Your task to perform on an android device: Go to ESPN.com Image 0: 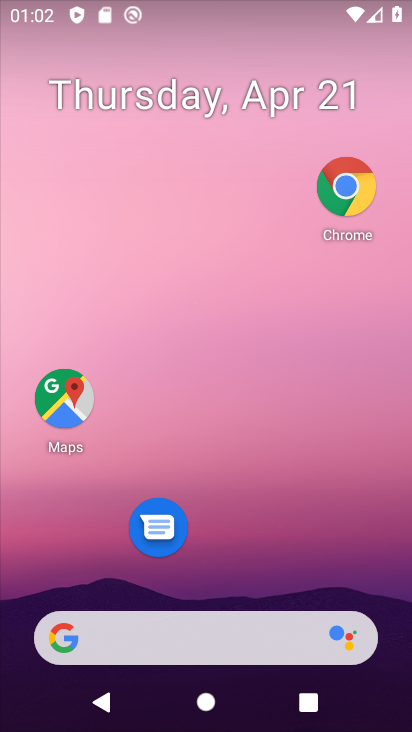
Step 0: drag from (239, 575) to (277, 117)
Your task to perform on an android device: Go to ESPN.com Image 1: 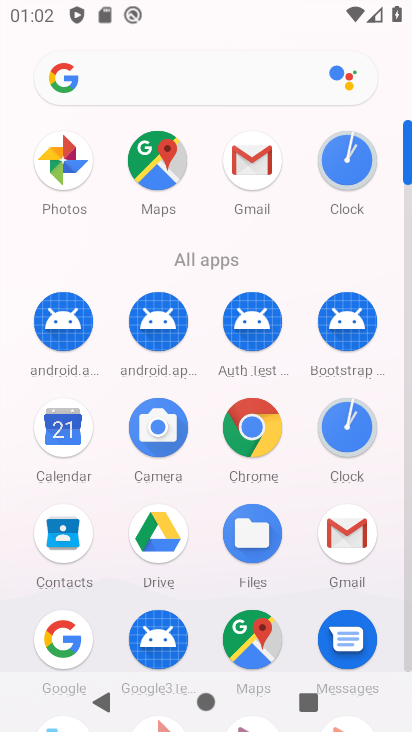
Step 1: click (239, 428)
Your task to perform on an android device: Go to ESPN.com Image 2: 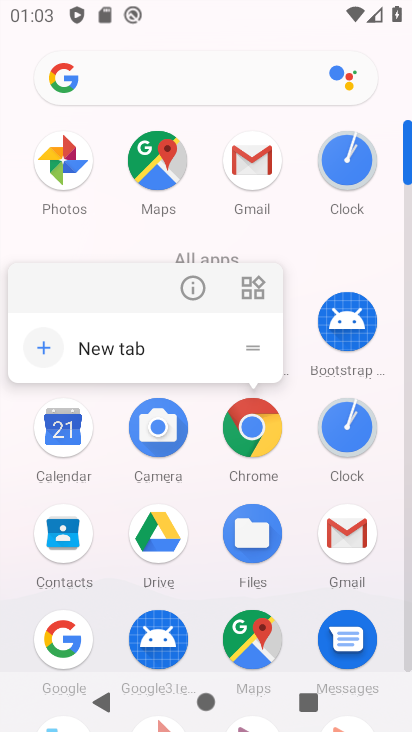
Step 2: click (183, 290)
Your task to perform on an android device: Go to ESPN.com Image 3: 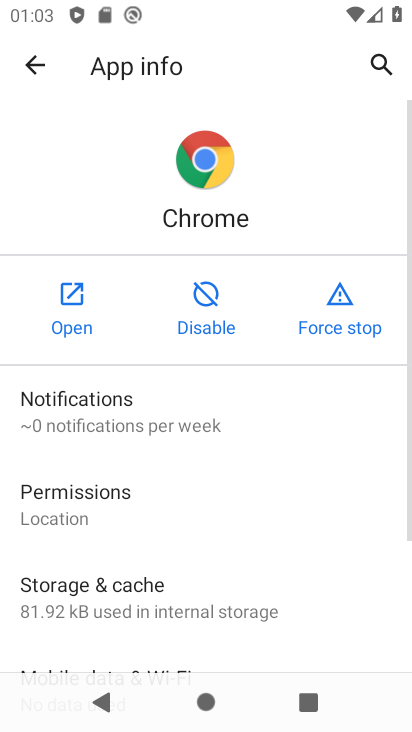
Step 3: click (65, 297)
Your task to perform on an android device: Go to ESPN.com Image 4: 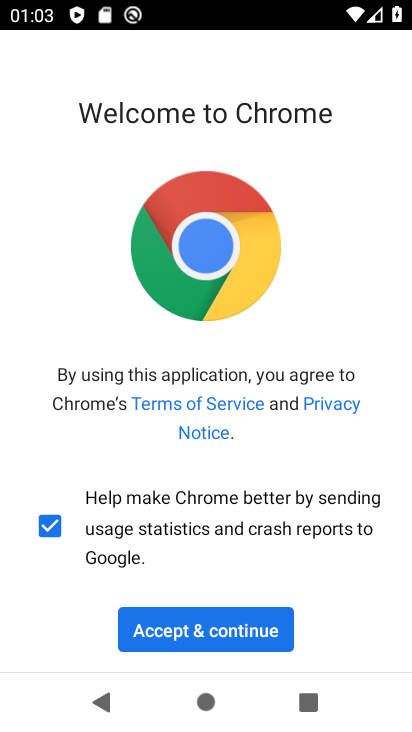
Step 4: click (184, 629)
Your task to perform on an android device: Go to ESPN.com Image 5: 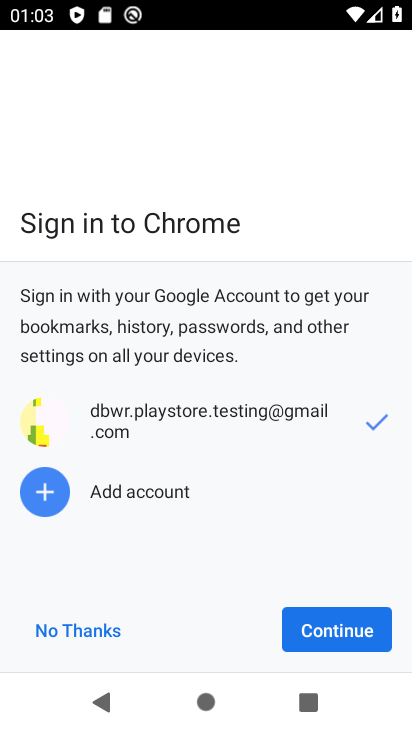
Step 5: click (341, 637)
Your task to perform on an android device: Go to ESPN.com Image 6: 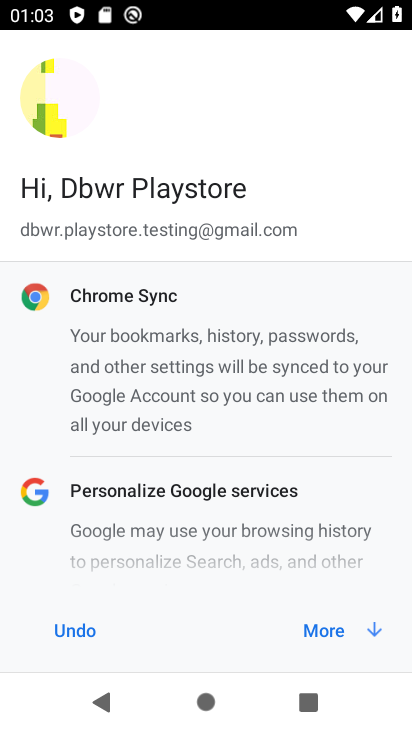
Step 6: click (336, 634)
Your task to perform on an android device: Go to ESPN.com Image 7: 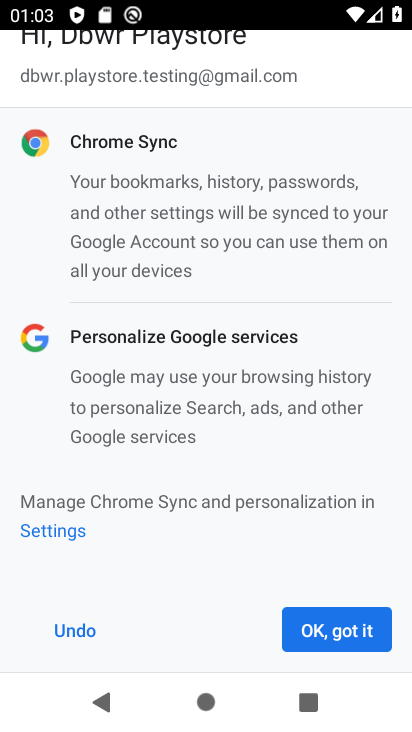
Step 7: click (335, 633)
Your task to perform on an android device: Go to ESPN.com Image 8: 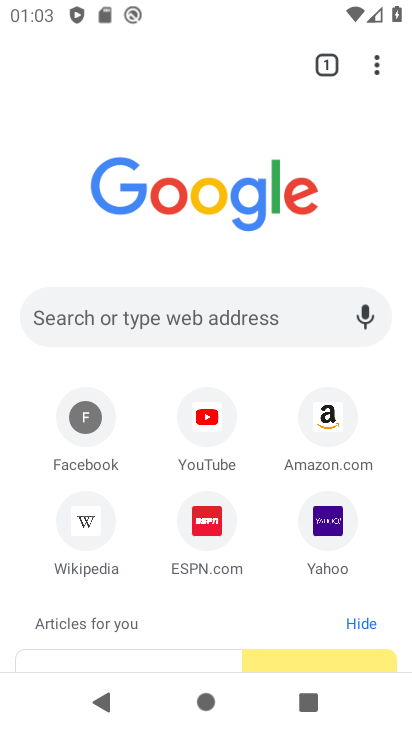
Step 8: drag from (370, 61) to (59, 190)
Your task to perform on an android device: Go to ESPN.com Image 9: 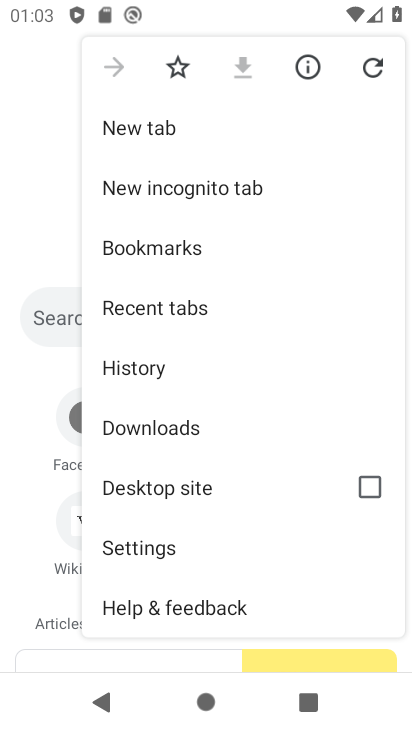
Step 9: click (52, 177)
Your task to perform on an android device: Go to ESPN.com Image 10: 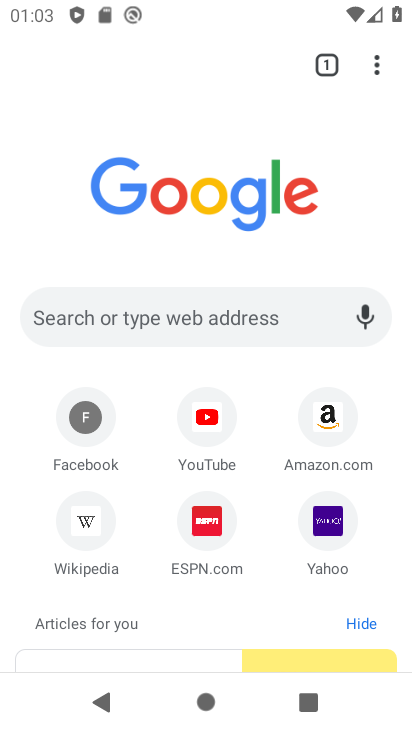
Step 10: click (217, 530)
Your task to perform on an android device: Go to ESPN.com Image 11: 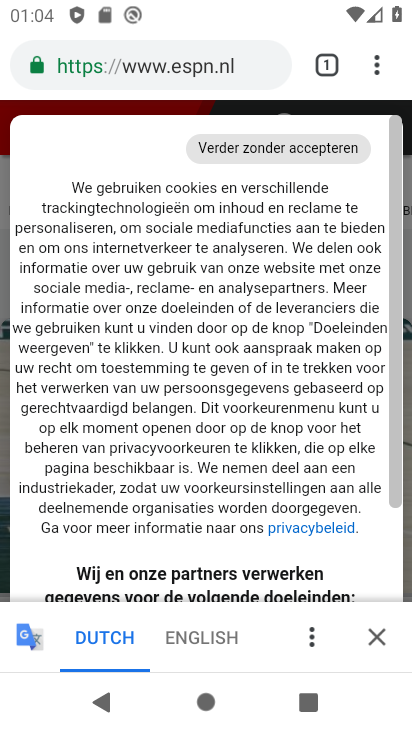
Step 11: drag from (215, 534) to (258, 129)
Your task to perform on an android device: Go to ESPN.com Image 12: 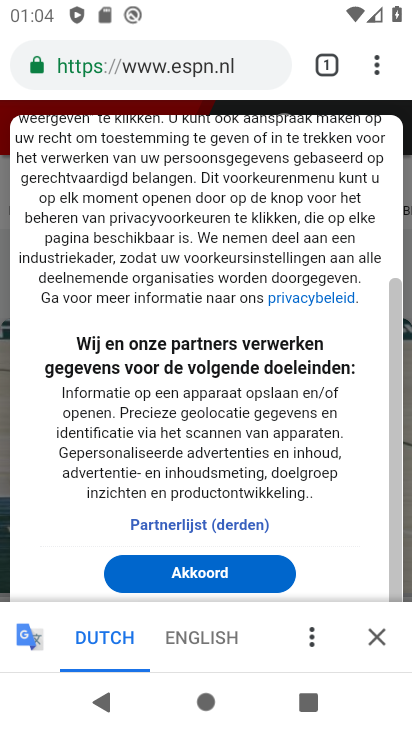
Step 12: drag from (235, 493) to (224, 286)
Your task to perform on an android device: Go to ESPN.com Image 13: 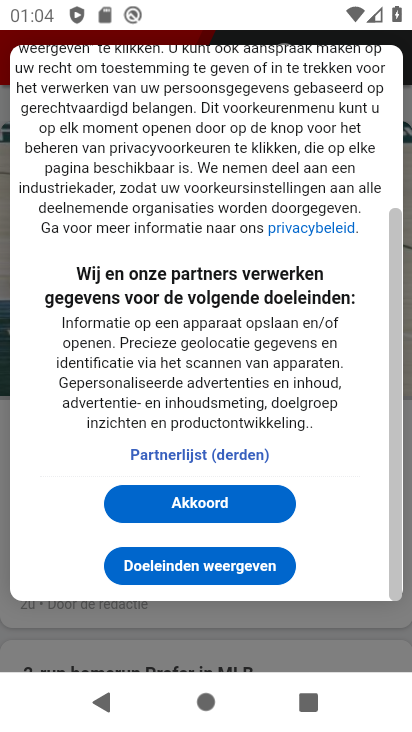
Step 13: drag from (259, 247) to (382, 612)
Your task to perform on an android device: Go to ESPN.com Image 14: 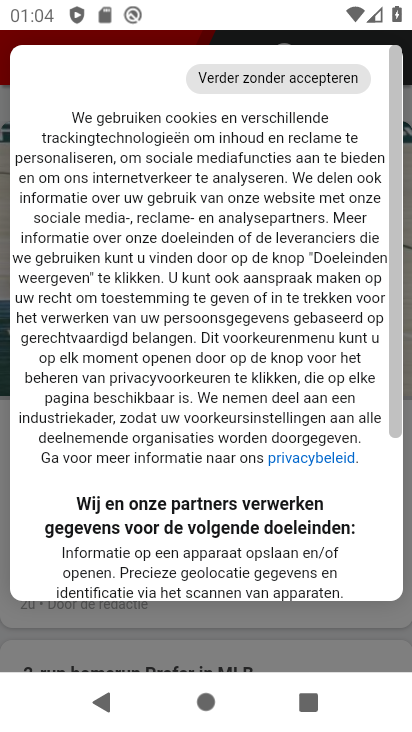
Step 14: drag from (303, 385) to (284, 17)
Your task to perform on an android device: Go to ESPN.com Image 15: 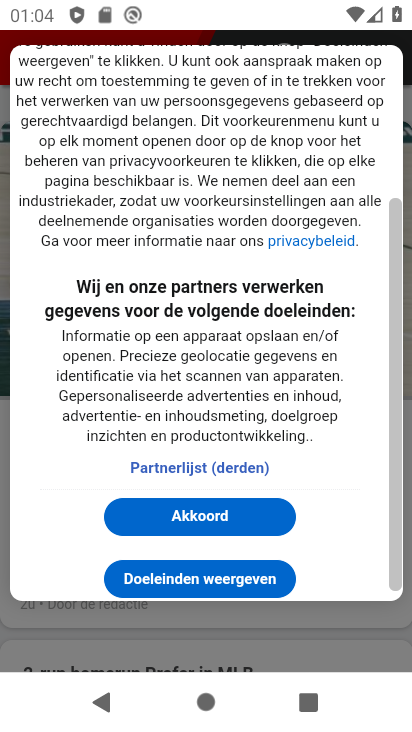
Step 15: click (202, 508)
Your task to perform on an android device: Go to ESPN.com Image 16: 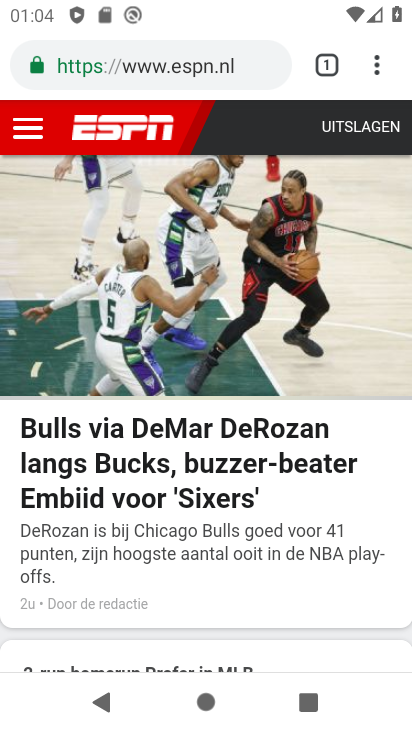
Step 16: task complete